Your task to perform on an android device: refresh tabs in the chrome app Image 0: 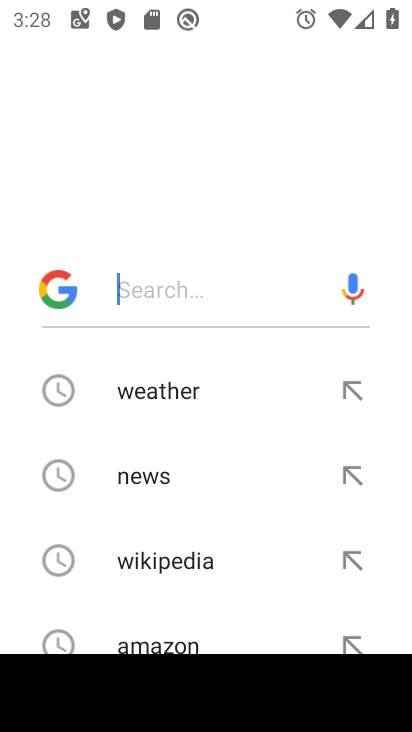
Step 0: press home button
Your task to perform on an android device: refresh tabs in the chrome app Image 1: 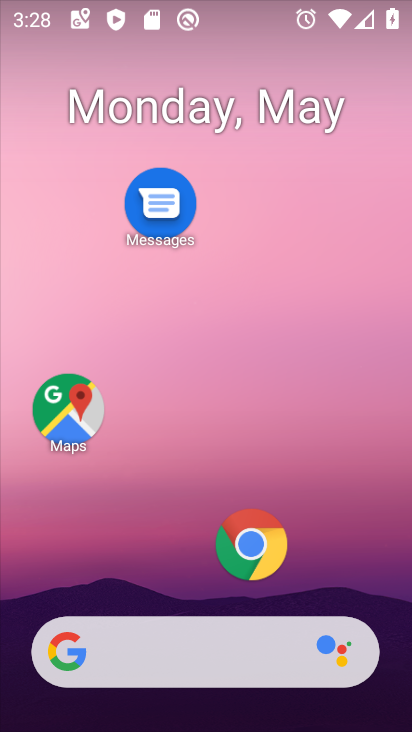
Step 1: click (239, 538)
Your task to perform on an android device: refresh tabs in the chrome app Image 2: 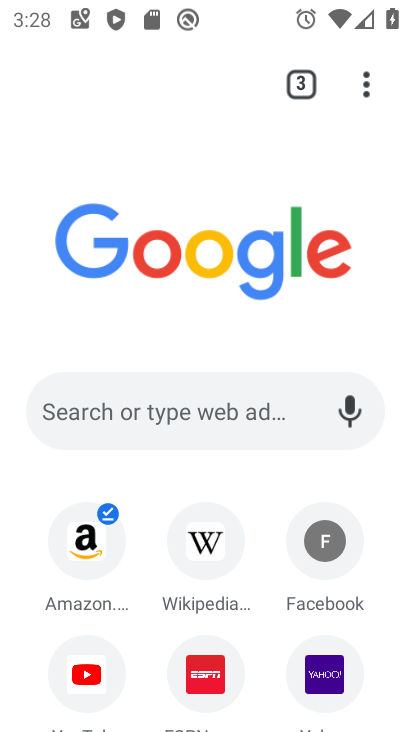
Step 2: click (362, 92)
Your task to perform on an android device: refresh tabs in the chrome app Image 3: 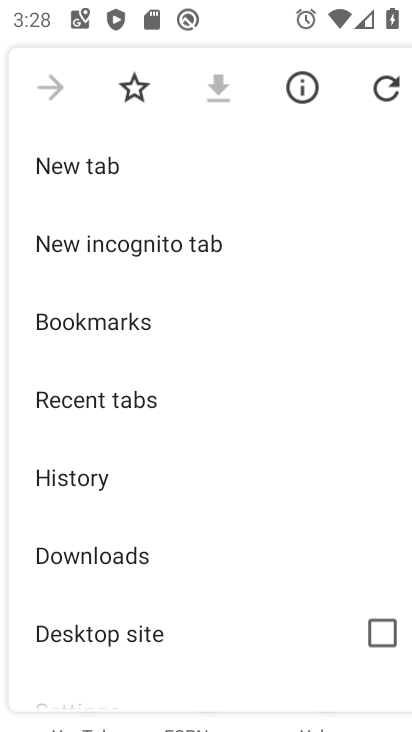
Step 3: click (383, 98)
Your task to perform on an android device: refresh tabs in the chrome app Image 4: 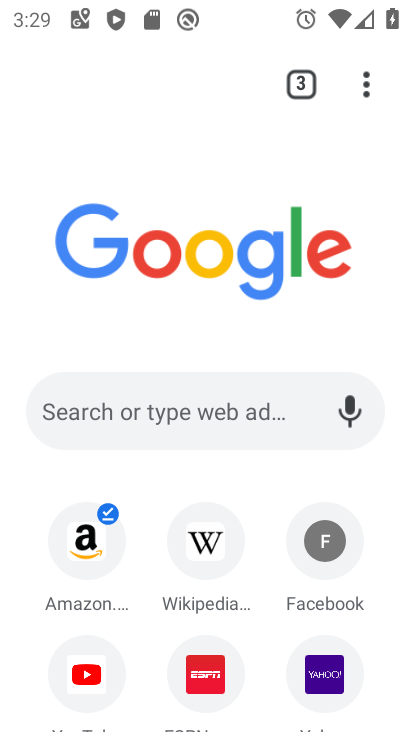
Step 4: click (362, 91)
Your task to perform on an android device: refresh tabs in the chrome app Image 5: 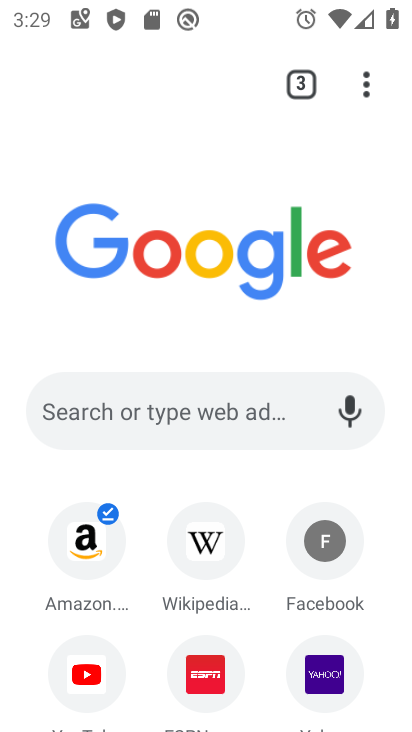
Step 5: task complete